Your task to perform on an android device: Go to battery settings Image 0: 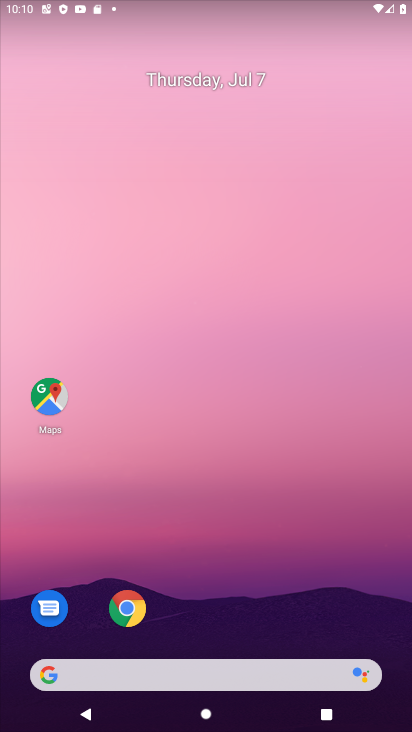
Step 0: drag from (208, 633) to (219, 107)
Your task to perform on an android device: Go to battery settings Image 1: 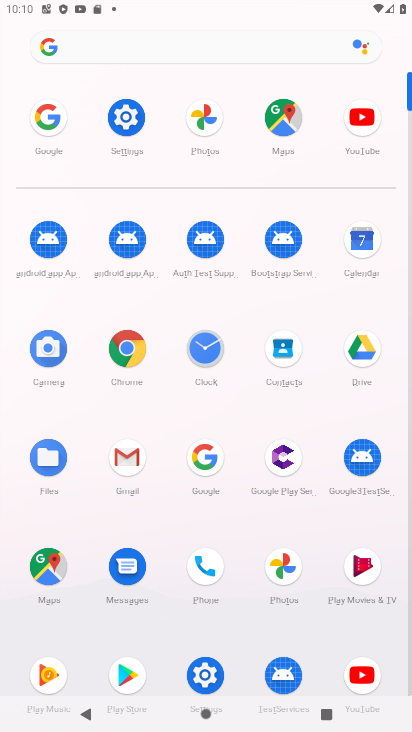
Step 1: click (116, 113)
Your task to perform on an android device: Go to battery settings Image 2: 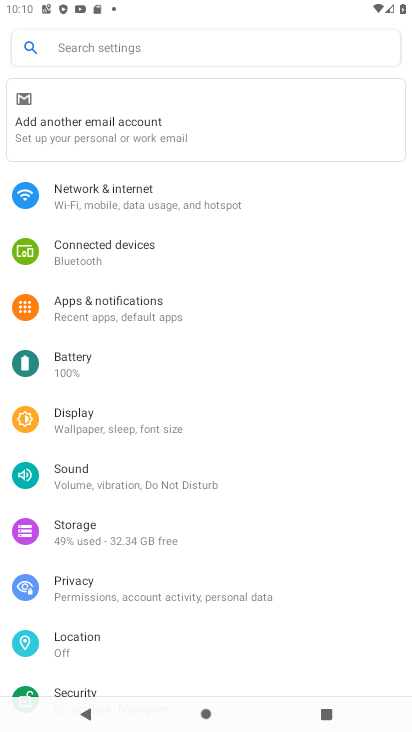
Step 2: click (84, 365)
Your task to perform on an android device: Go to battery settings Image 3: 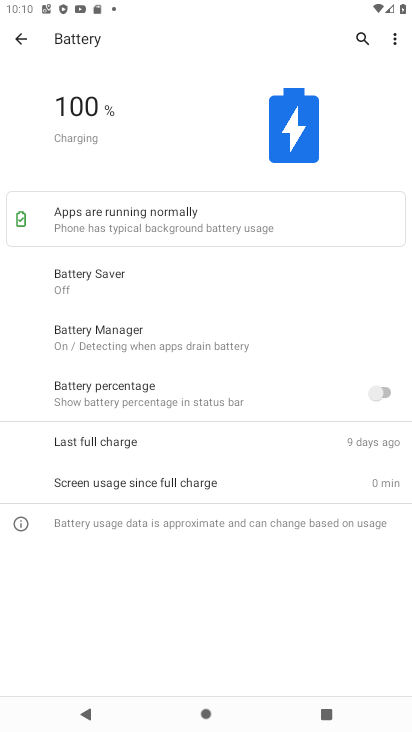
Step 3: task complete